Your task to perform on an android device: Go to display settings Image 0: 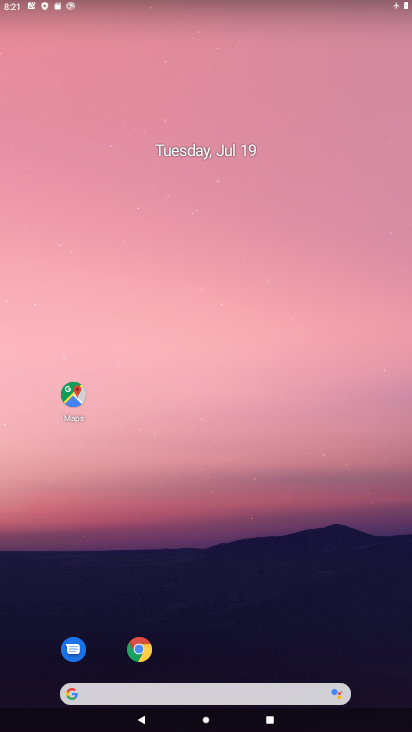
Step 0: drag from (208, 666) to (243, 11)
Your task to perform on an android device: Go to display settings Image 1: 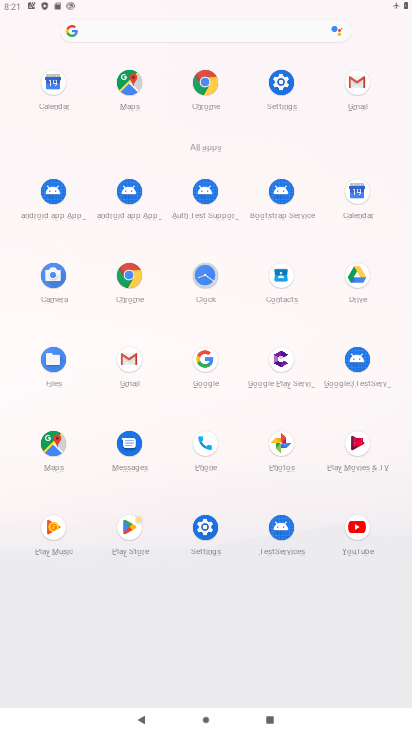
Step 1: click (276, 77)
Your task to perform on an android device: Go to display settings Image 2: 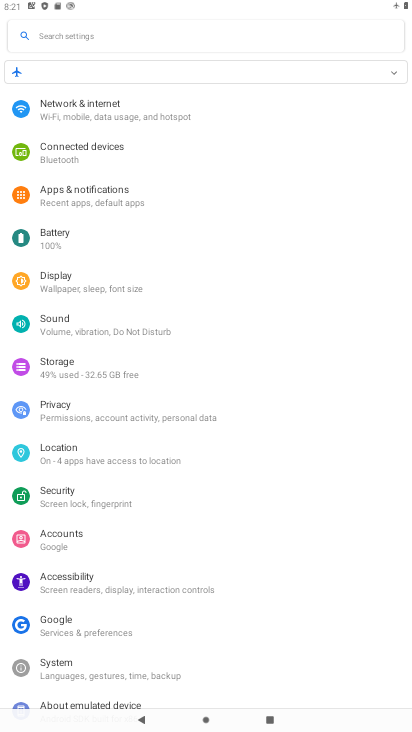
Step 2: click (78, 276)
Your task to perform on an android device: Go to display settings Image 3: 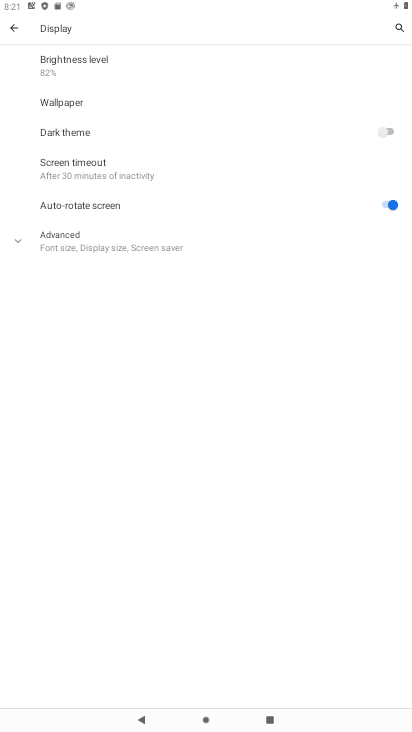
Step 3: click (22, 239)
Your task to perform on an android device: Go to display settings Image 4: 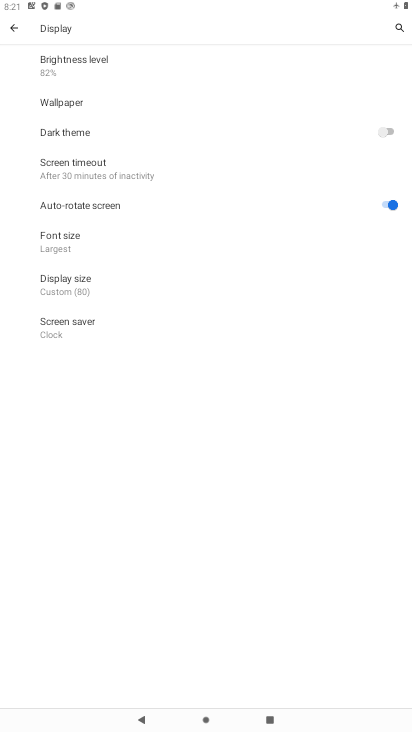
Step 4: task complete